Your task to perform on an android device: Is it going to rain today? Image 0: 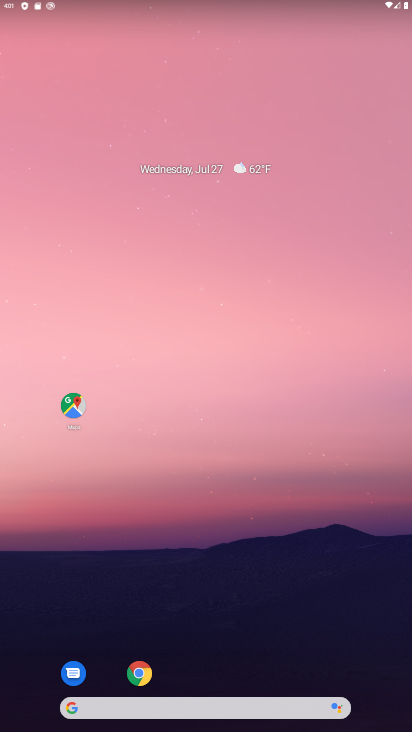
Step 0: click (148, 705)
Your task to perform on an android device: Is it going to rain today? Image 1: 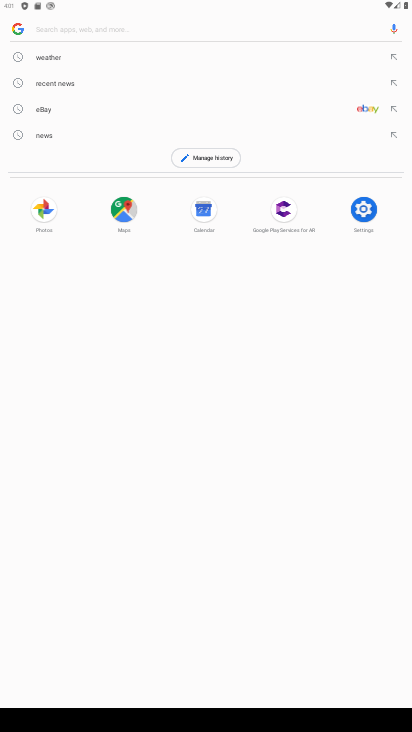
Step 1: click (45, 58)
Your task to perform on an android device: Is it going to rain today? Image 2: 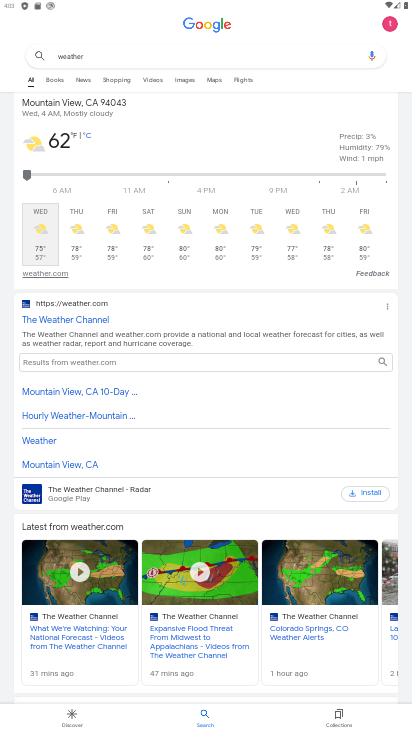
Step 2: task complete